Your task to perform on an android device: turn on notifications settings in the gmail app Image 0: 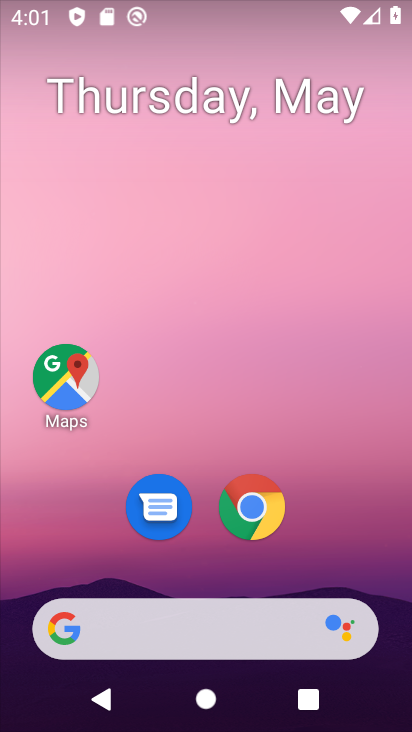
Step 0: drag from (331, 567) to (190, 2)
Your task to perform on an android device: turn on notifications settings in the gmail app Image 1: 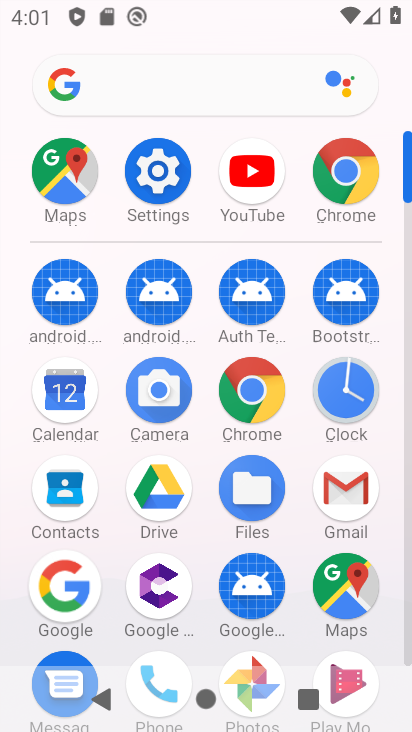
Step 1: click (336, 492)
Your task to perform on an android device: turn on notifications settings in the gmail app Image 2: 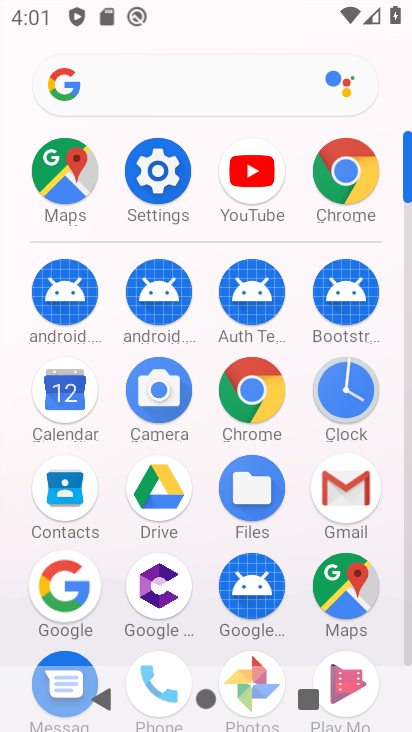
Step 2: click (336, 492)
Your task to perform on an android device: turn on notifications settings in the gmail app Image 3: 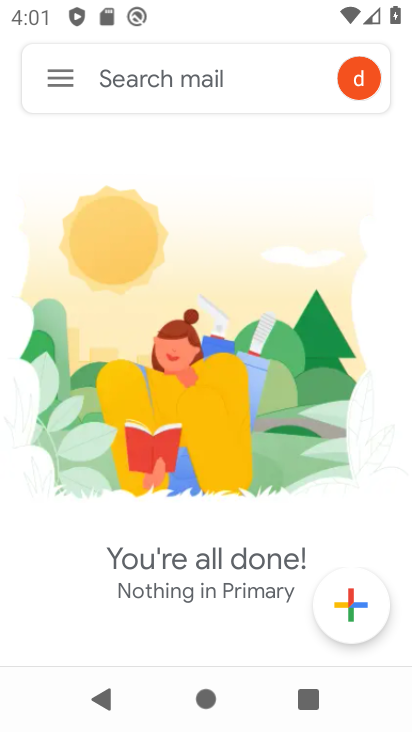
Step 3: click (343, 486)
Your task to perform on an android device: turn on notifications settings in the gmail app Image 4: 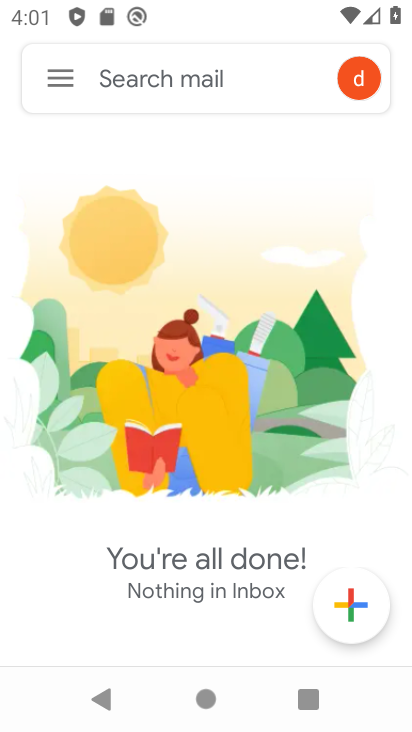
Step 4: click (67, 80)
Your task to perform on an android device: turn on notifications settings in the gmail app Image 5: 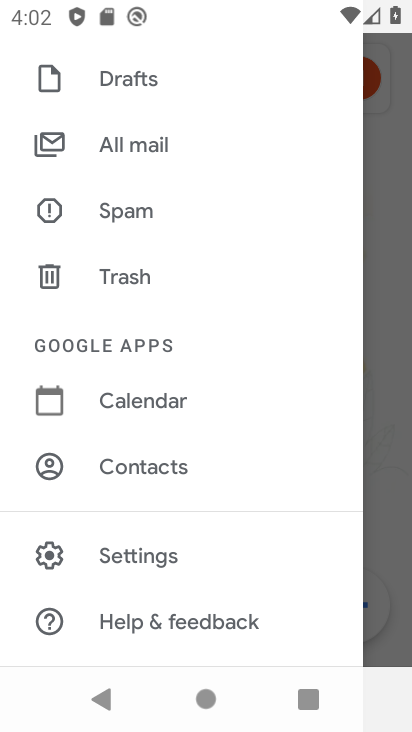
Step 5: click (134, 555)
Your task to perform on an android device: turn on notifications settings in the gmail app Image 6: 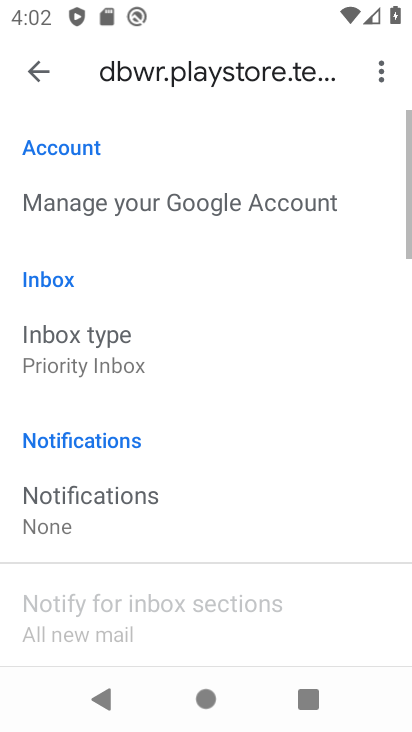
Step 6: drag from (149, 473) to (98, 138)
Your task to perform on an android device: turn on notifications settings in the gmail app Image 7: 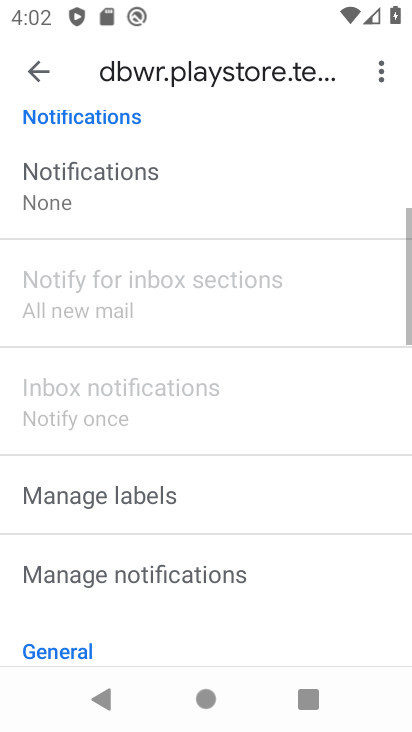
Step 7: drag from (188, 450) to (143, 248)
Your task to perform on an android device: turn on notifications settings in the gmail app Image 8: 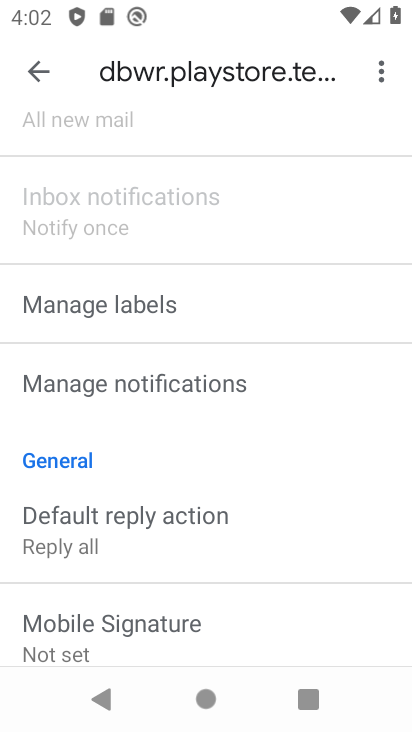
Step 8: drag from (141, 479) to (145, 252)
Your task to perform on an android device: turn on notifications settings in the gmail app Image 9: 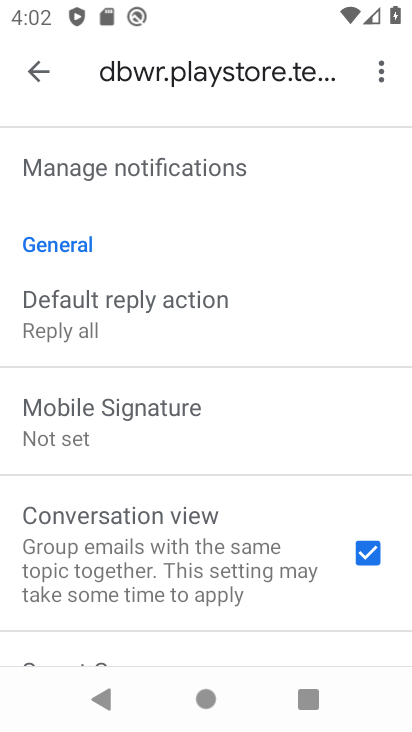
Step 9: drag from (150, 407) to (146, 174)
Your task to perform on an android device: turn on notifications settings in the gmail app Image 10: 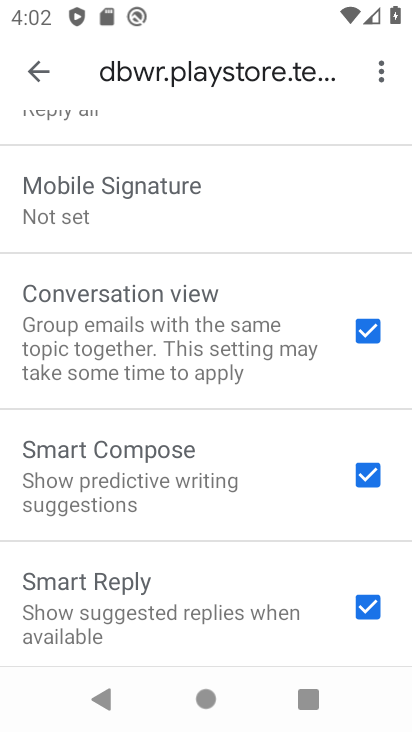
Step 10: drag from (131, 264) to (173, 508)
Your task to perform on an android device: turn on notifications settings in the gmail app Image 11: 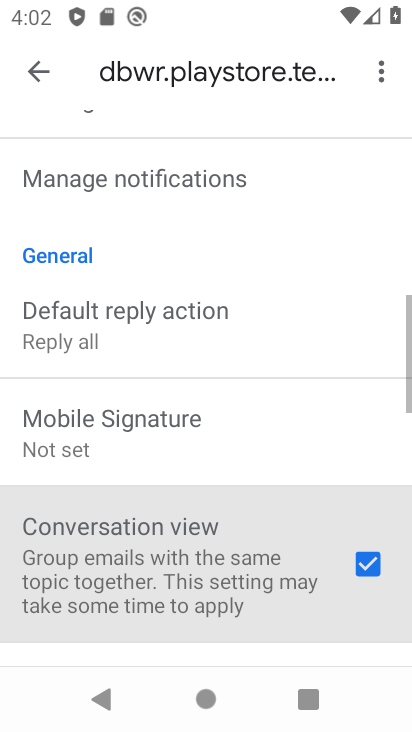
Step 11: drag from (137, 290) to (197, 570)
Your task to perform on an android device: turn on notifications settings in the gmail app Image 12: 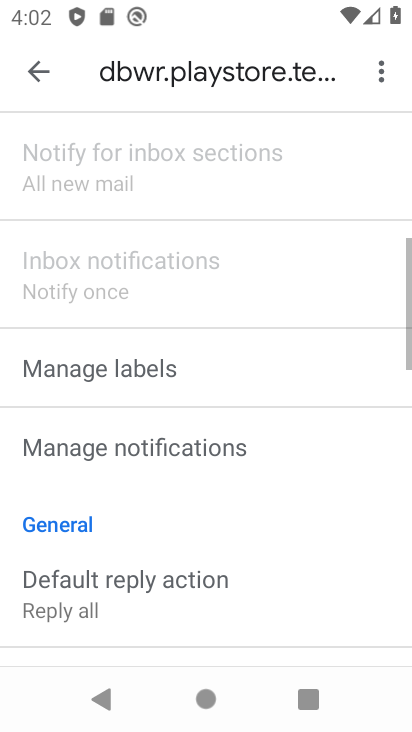
Step 12: drag from (144, 356) to (228, 589)
Your task to perform on an android device: turn on notifications settings in the gmail app Image 13: 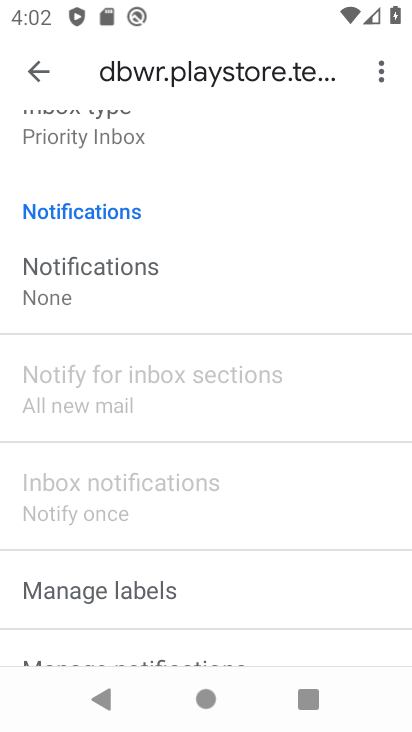
Step 13: click (65, 286)
Your task to perform on an android device: turn on notifications settings in the gmail app Image 14: 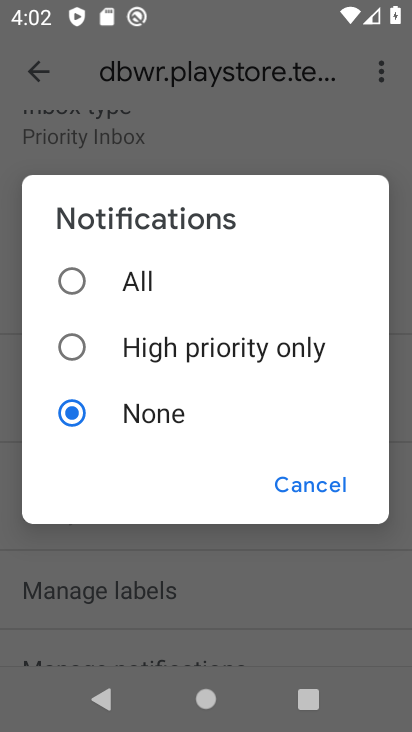
Step 14: click (73, 273)
Your task to perform on an android device: turn on notifications settings in the gmail app Image 15: 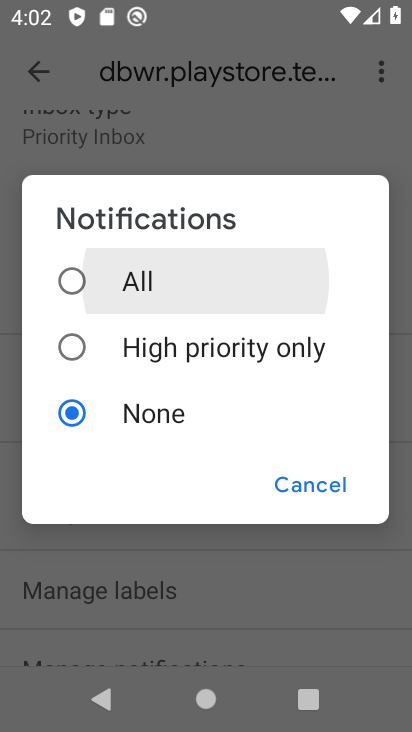
Step 15: click (72, 273)
Your task to perform on an android device: turn on notifications settings in the gmail app Image 16: 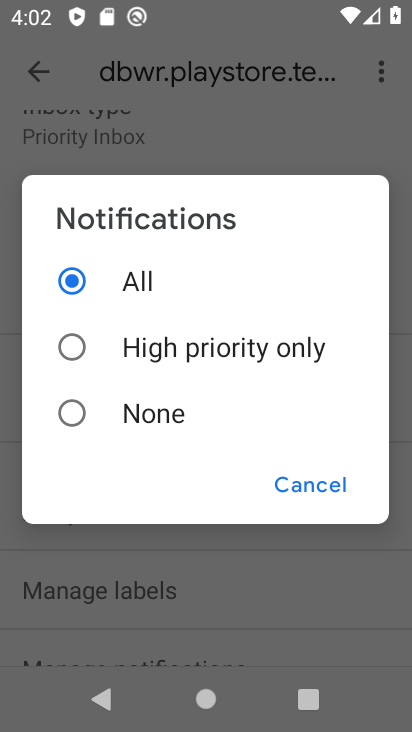
Step 16: task complete